Your task to perform on an android device: create a new album in the google photos Image 0: 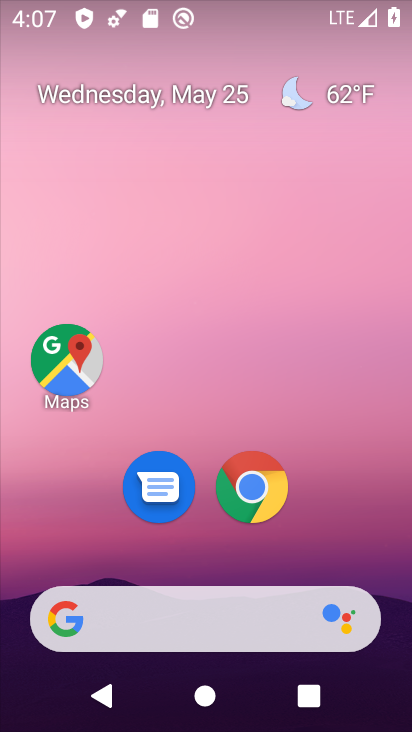
Step 0: press home button
Your task to perform on an android device: create a new album in the google photos Image 1: 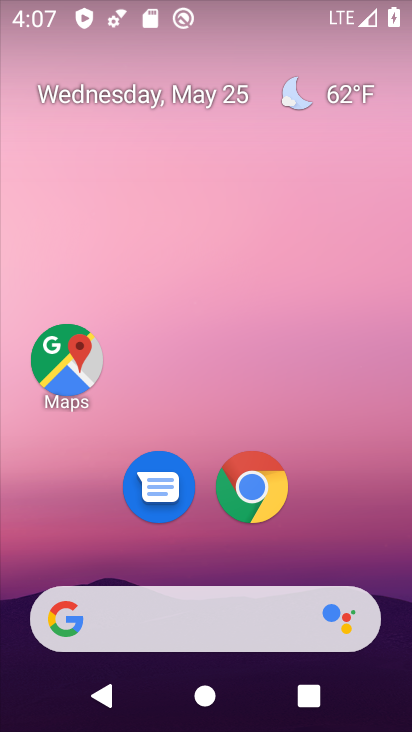
Step 1: drag from (365, 533) to (307, 0)
Your task to perform on an android device: create a new album in the google photos Image 2: 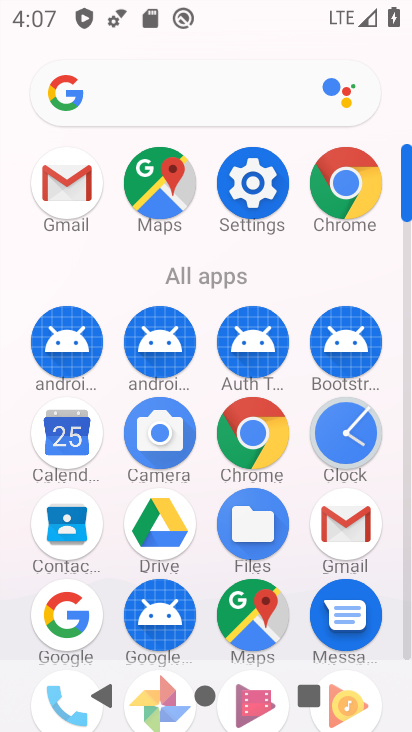
Step 2: drag from (199, 571) to (194, 484)
Your task to perform on an android device: create a new album in the google photos Image 3: 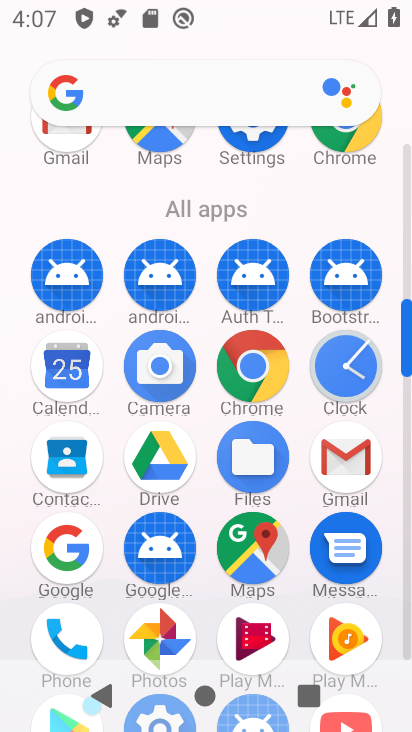
Step 3: click (157, 646)
Your task to perform on an android device: create a new album in the google photos Image 4: 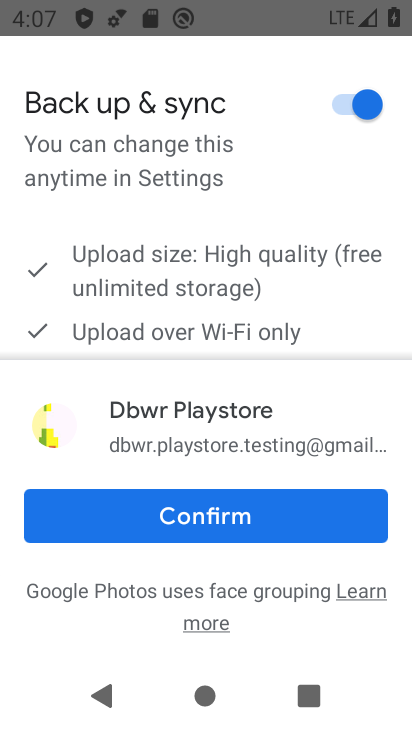
Step 4: click (237, 532)
Your task to perform on an android device: create a new album in the google photos Image 5: 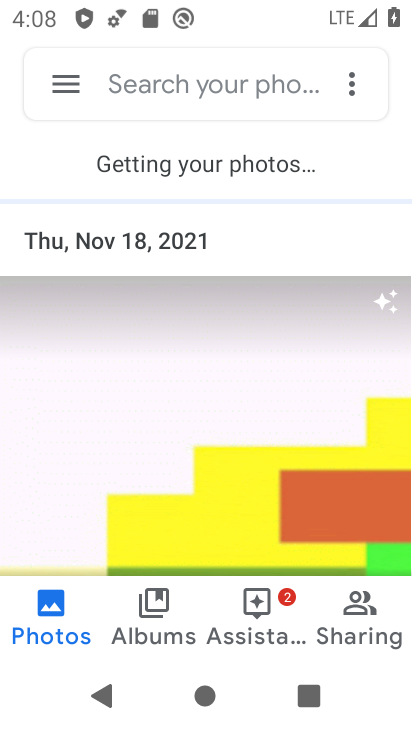
Step 5: drag from (260, 498) to (244, 128)
Your task to perform on an android device: create a new album in the google photos Image 6: 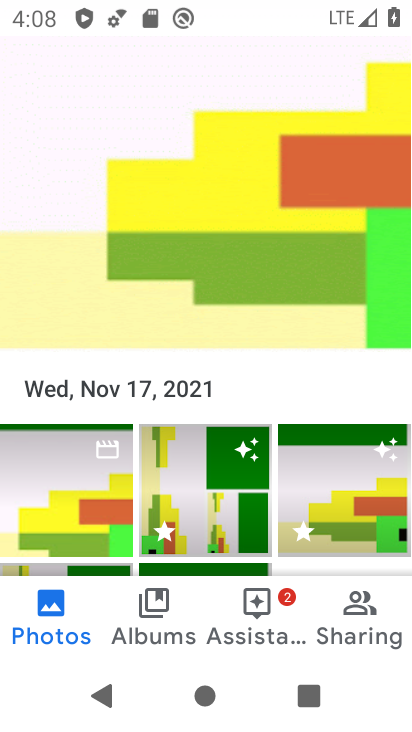
Step 6: click (209, 511)
Your task to perform on an android device: create a new album in the google photos Image 7: 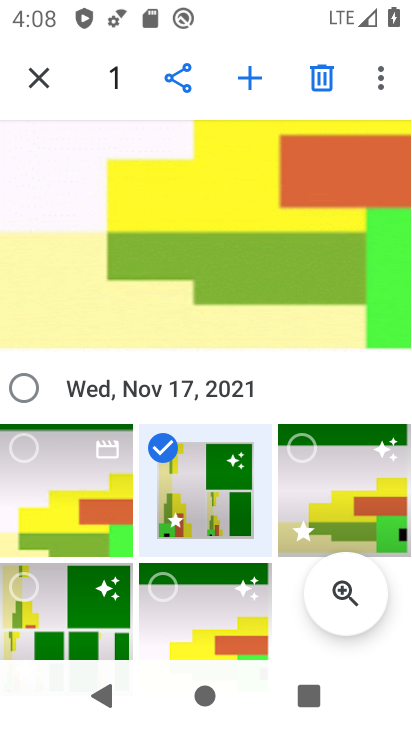
Step 7: click (252, 76)
Your task to perform on an android device: create a new album in the google photos Image 8: 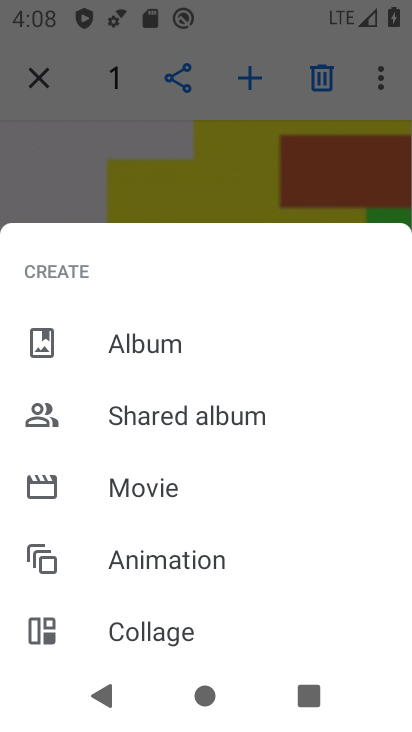
Step 8: click (178, 351)
Your task to perform on an android device: create a new album in the google photos Image 9: 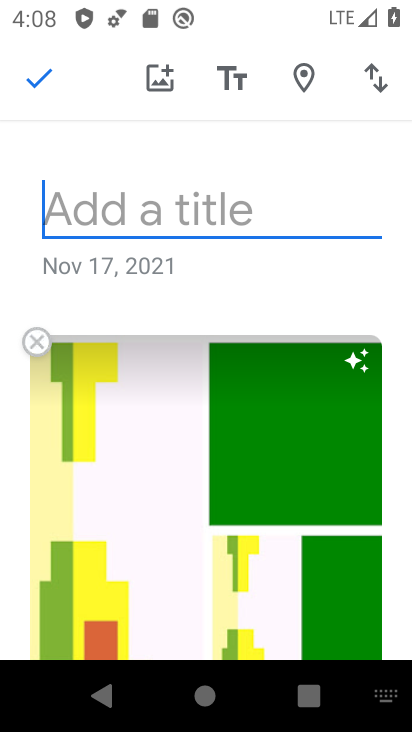
Step 9: type "frfr"
Your task to perform on an android device: create a new album in the google photos Image 10: 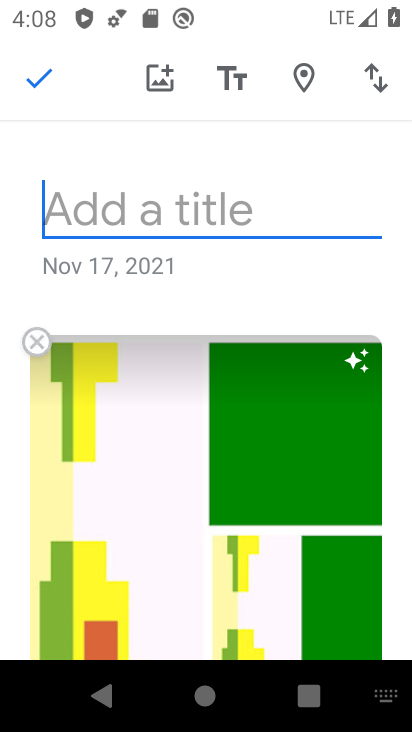
Step 10: click (35, 74)
Your task to perform on an android device: create a new album in the google photos Image 11: 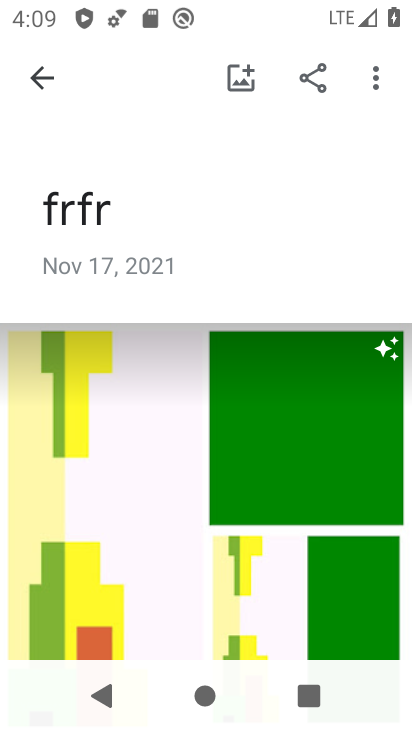
Step 11: task complete